Your task to perform on an android device: Open calendar and show me the third week of next month Image 0: 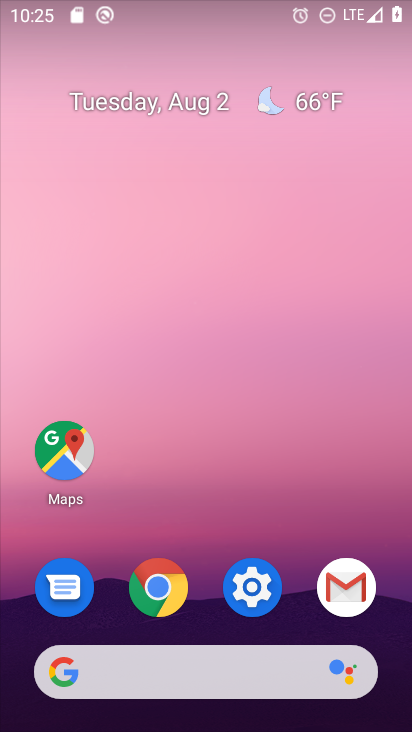
Step 0: drag from (248, 641) to (154, 134)
Your task to perform on an android device: Open calendar and show me the third week of next month Image 1: 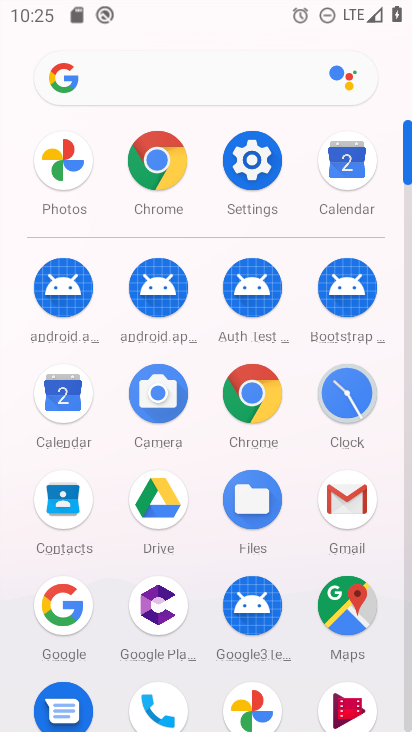
Step 1: click (352, 169)
Your task to perform on an android device: Open calendar and show me the third week of next month Image 2: 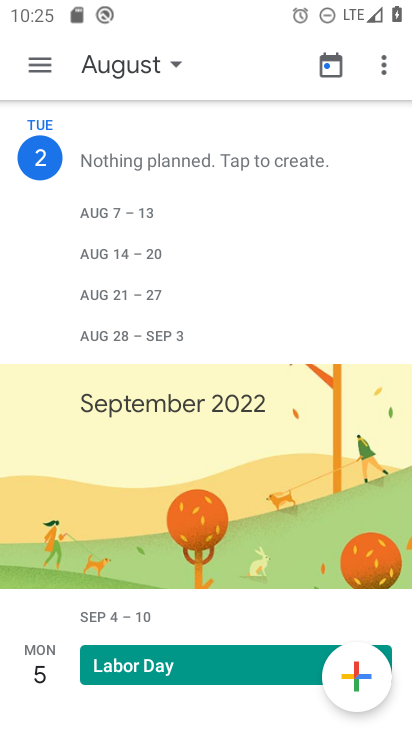
Step 2: click (43, 59)
Your task to perform on an android device: Open calendar and show me the third week of next month Image 3: 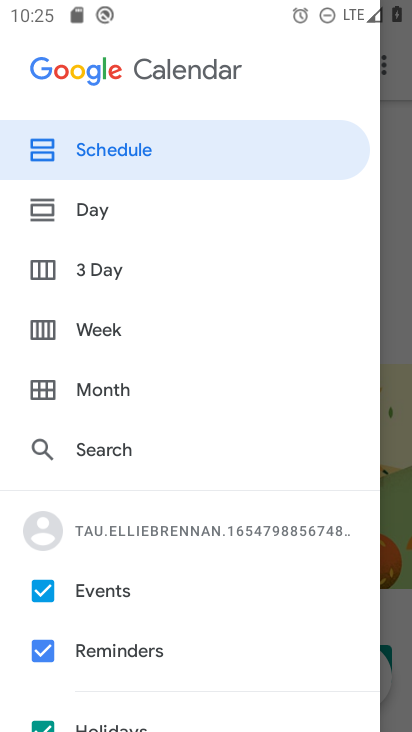
Step 3: click (103, 384)
Your task to perform on an android device: Open calendar and show me the third week of next month Image 4: 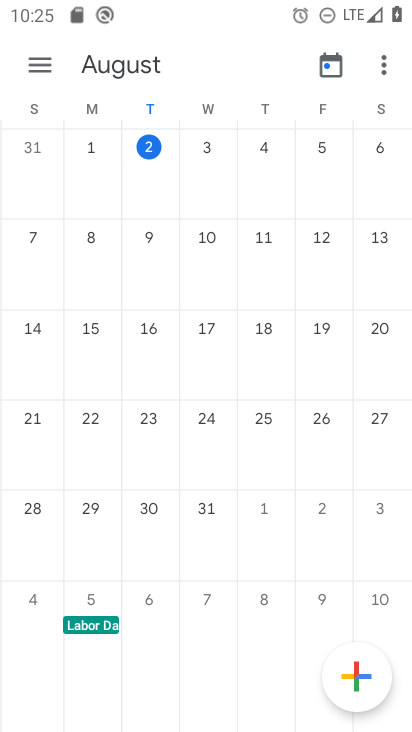
Step 4: drag from (365, 392) to (3, 375)
Your task to perform on an android device: Open calendar and show me the third week of next month Image 5: 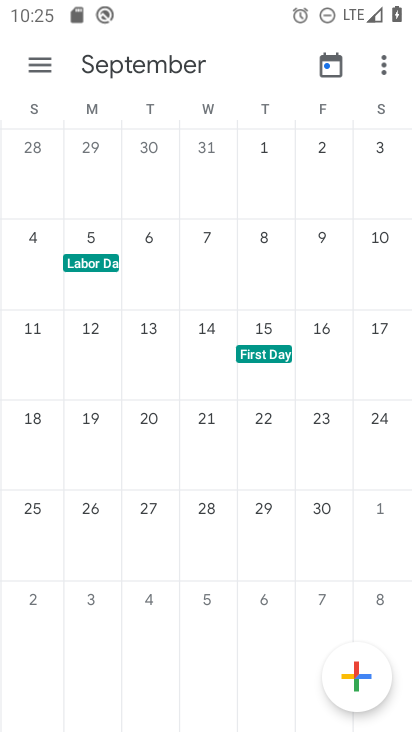
Step 5: click (97, 366)
Your task to perform on an android device: Open calendar and show me the third week of next month Image 6: 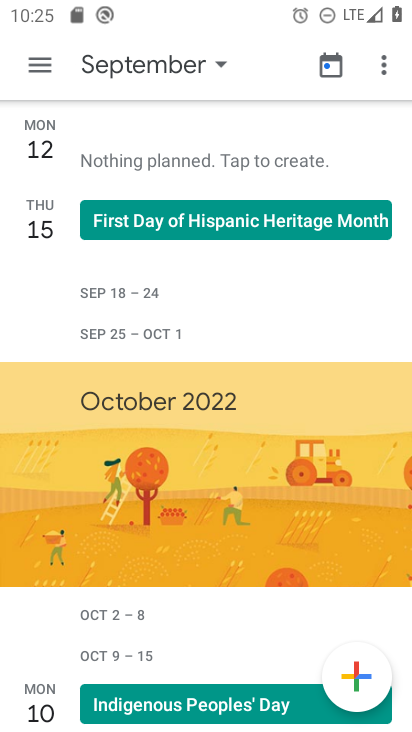
Step 6: task complete